Your task to perform on an android device: toggle data saver in the chrome app Image 0: 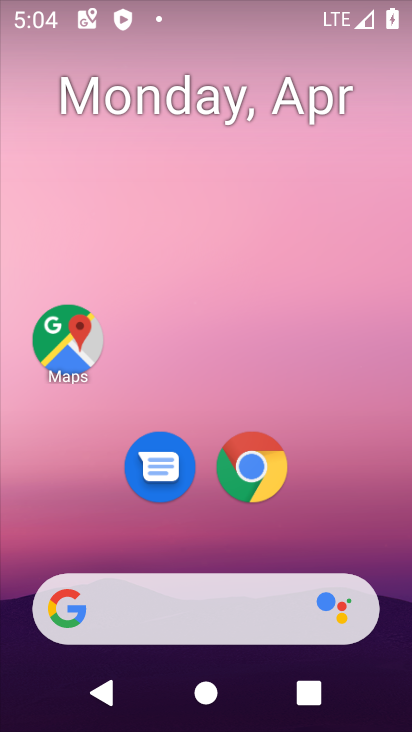
Step 0: drag from (312, 566) to (309, 8)
Your task to perform on an android device: toggle data saver in the chrome app Image 1: 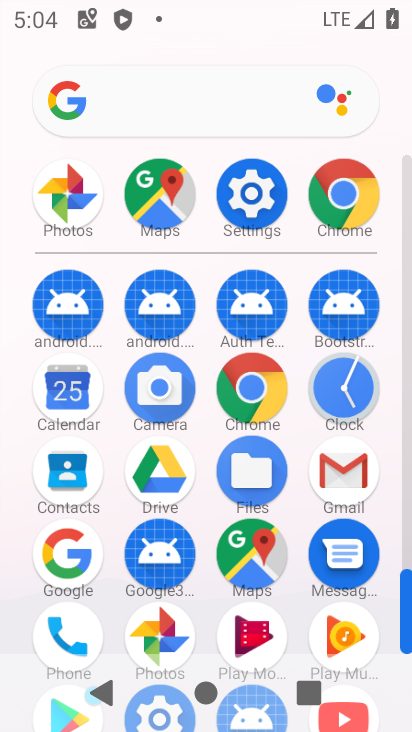
Step 1: click (241, 374)
Your task to perform on an android device: toggle data saver in the chrome app Image 2: 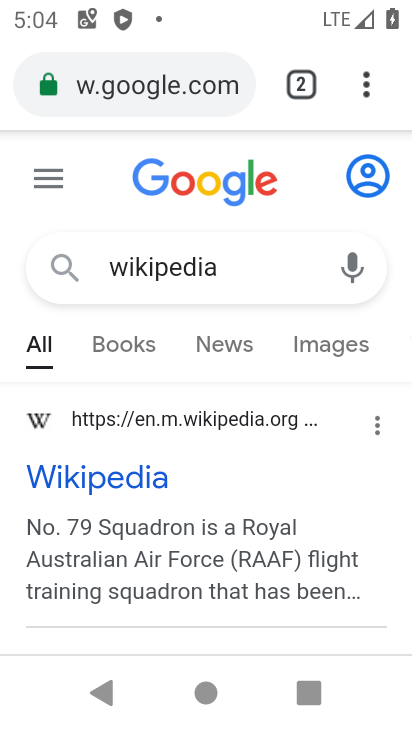
Step 2: drag from (365, 88) to (162, 527)
Your task to perform on an android device: toggle data saver in the chrome app Image 3: 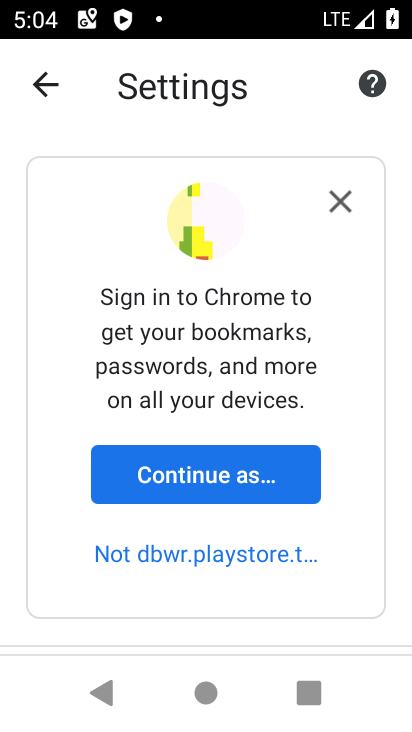
Step 3: drag from (209, 600) to (259, 9)
Your task to perform on an android device: toggle data saver in the chrome app Image 4: 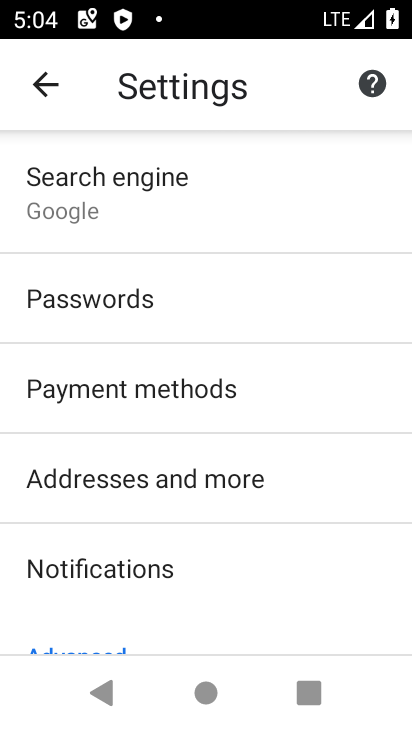
Step 4: drag from (218, 614) to (284, 38)
Your task to perform on an android device: toggle data saver in the chrome app Image 5: 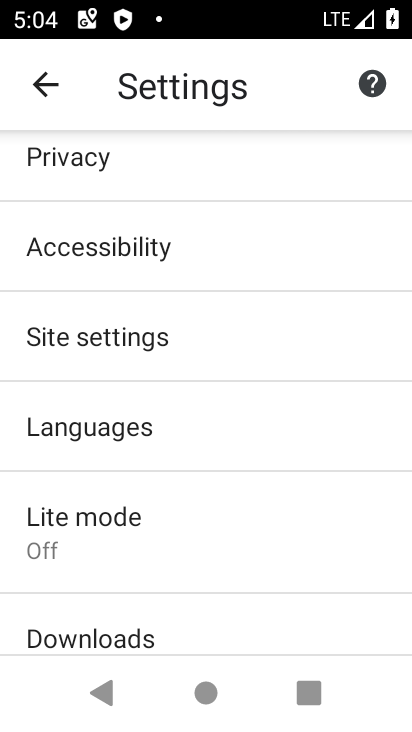
Step 5: click (147, 539)
Your task to perform on an android device: toggle data saver in the chrome app Image 6: 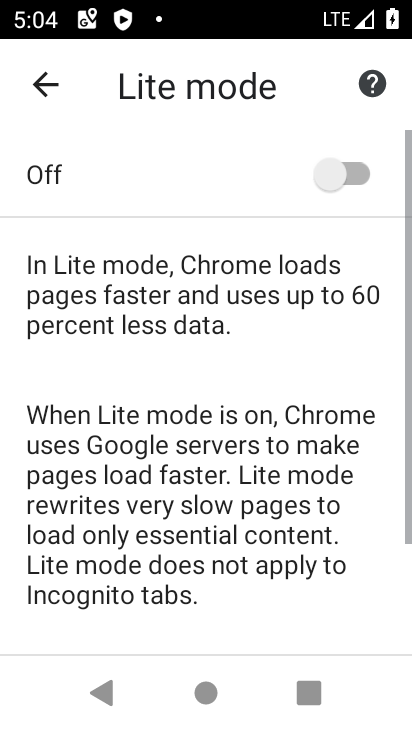
Step 6: click (362, 170)
Your task to perform on an android device: toggle data saver in the chrome app Image 7: 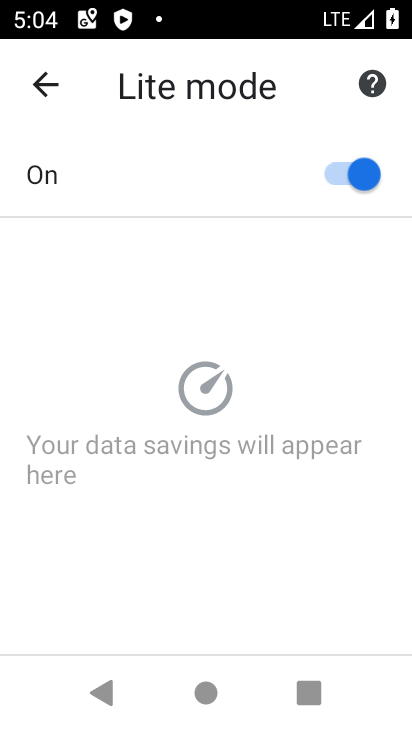
Step 7: task complete